Your task to perform on an android device: Open Chrome and go to settings Image 0: 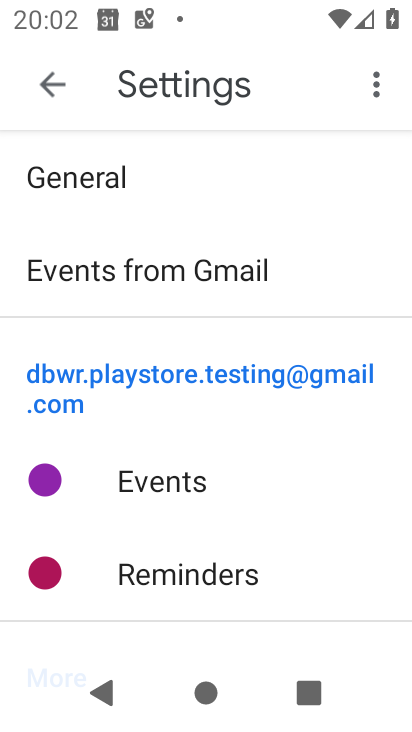
Step 0: press home button
Your task to perform on an android device: Open Chrome and go to settings Image 1: 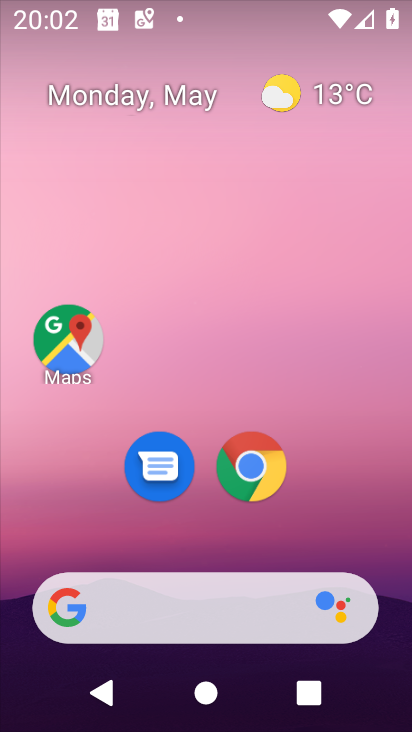
Step 1: drag from (303, 451) to (303, 274)
Your task to perform on an android device: Open Chrome and go to settings Image 2: 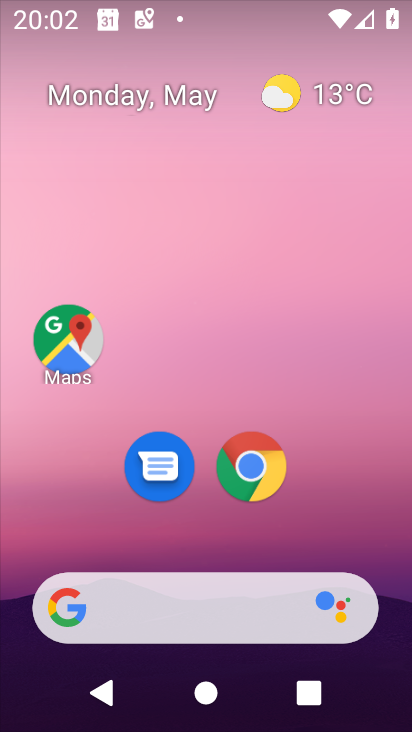
Step 2: drag from (340, 579) to (333, 208)
Your task to perform on an android device: Open Chrome and go to settings Image 3: 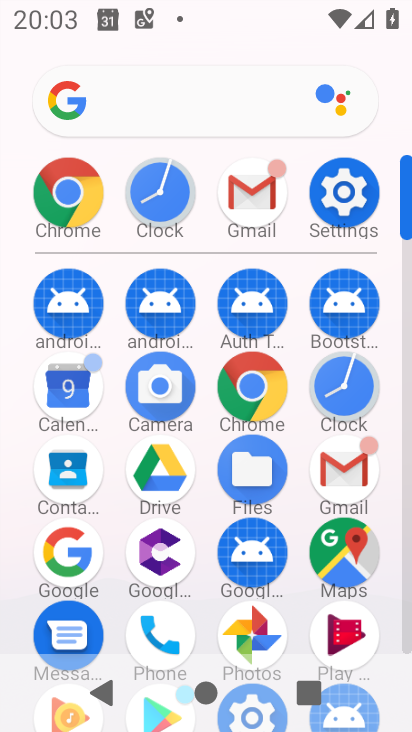
Step 3: click (248, 375)
Your task to perform on an android device: Open Chrome and go to settings Image 4: 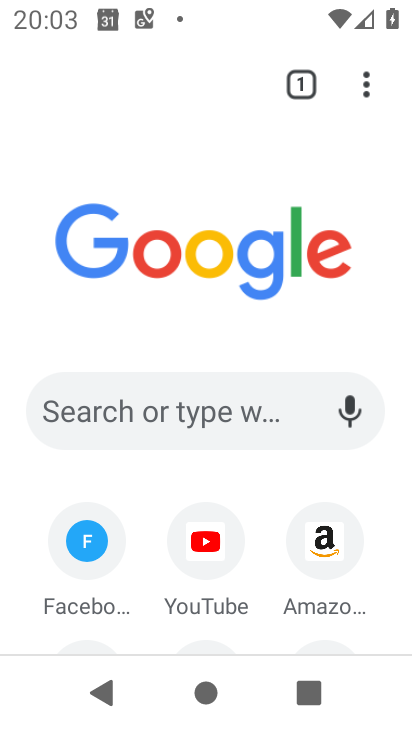
Step 4: click (357, 78)
Your task to perform on an android device: Open Chrome and go to settings Image 5: 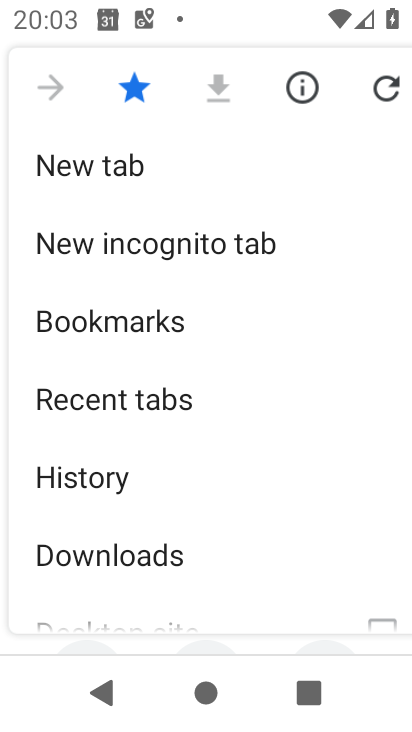
Step 5: drag from (204, 560) to (232, 260)
Your task to perform on an android device: Open Chrome and go to settings Image 6: 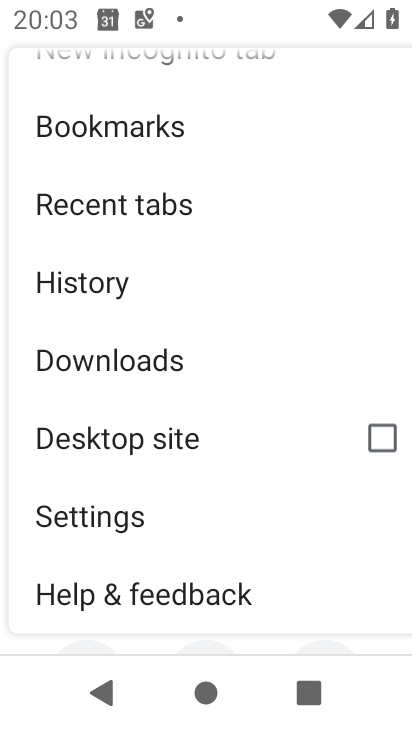
Step 6: click (139, 512)
Your task to perform on an android device: Open Chrome and go to settings Image 7: 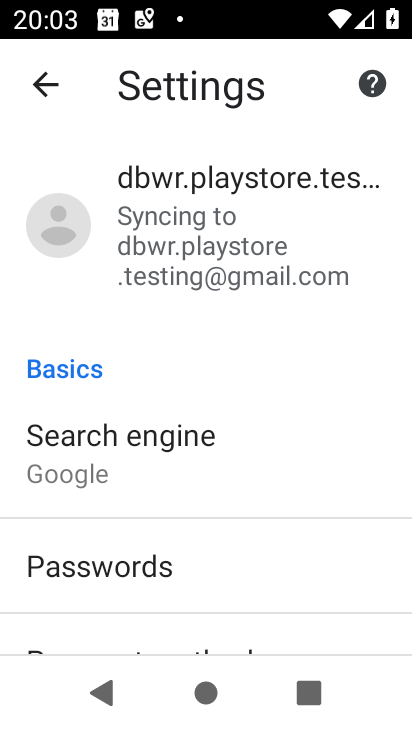
Step 7: task complete